Your task to perform on an android device: Open internet settings Image 0: 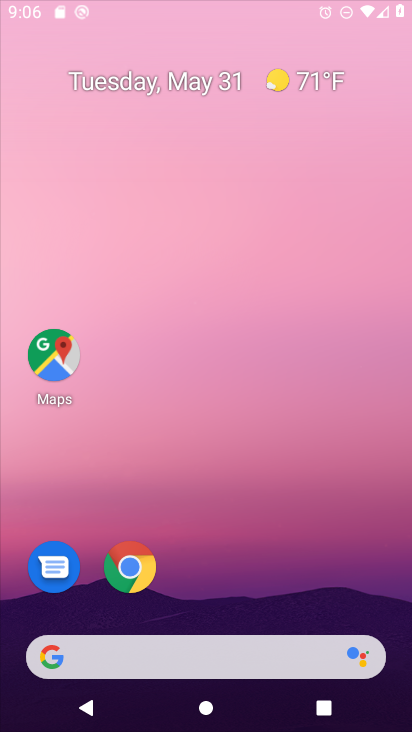
Step 0: click (187, 227)
Your task to perform on an android device: Open internet settings Image 1: 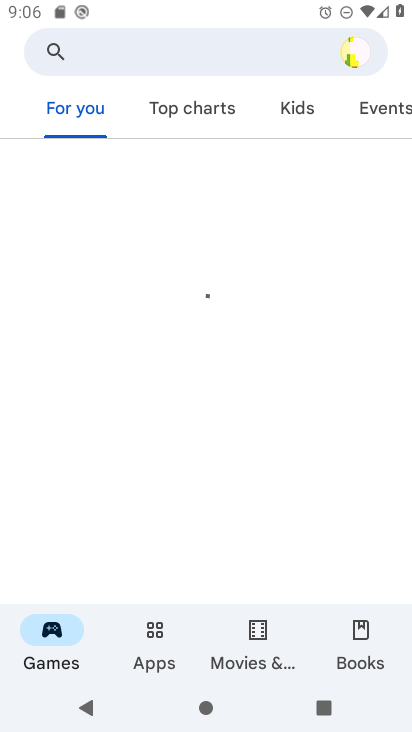
Step 1: press home button
Your task to perform on an android device: Open internet settings Image 2: 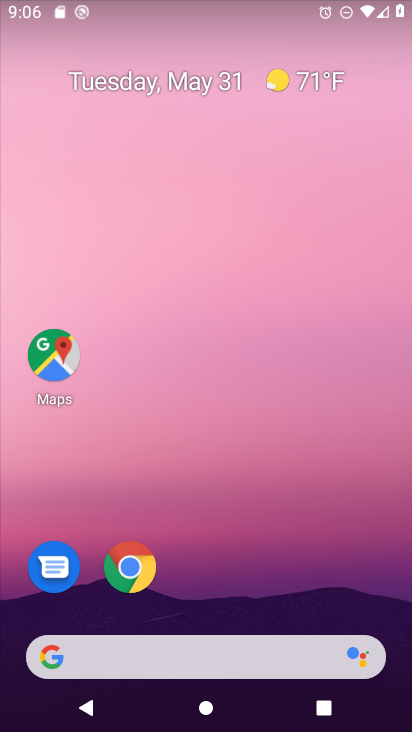
Step 2: drag from (188, 614) to (241, 140)
Your task to perform on an android device: Open internet settings Image 3: 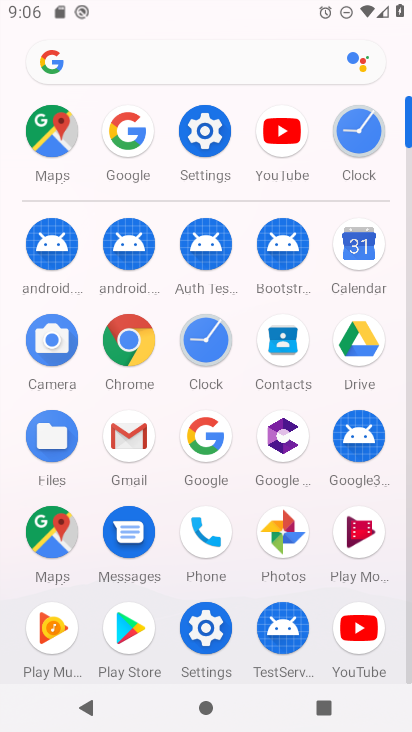
Step 3: click (202, 143)
Your task to perform on an android device: Open internet settings Image 4: 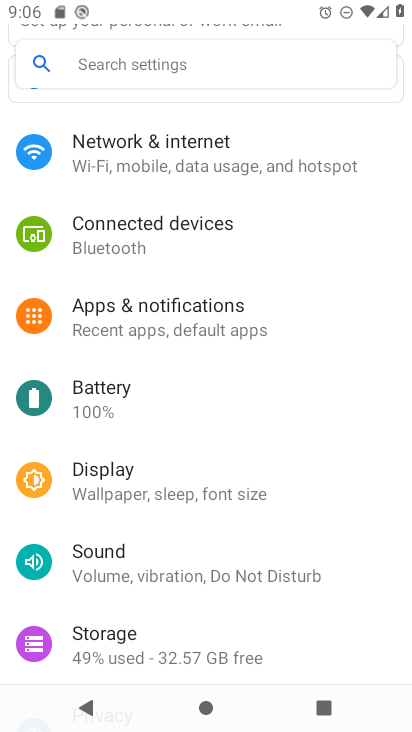
Step 4: click (208, 158)
Your task to perform on an android device: Open internet settings Image 5: 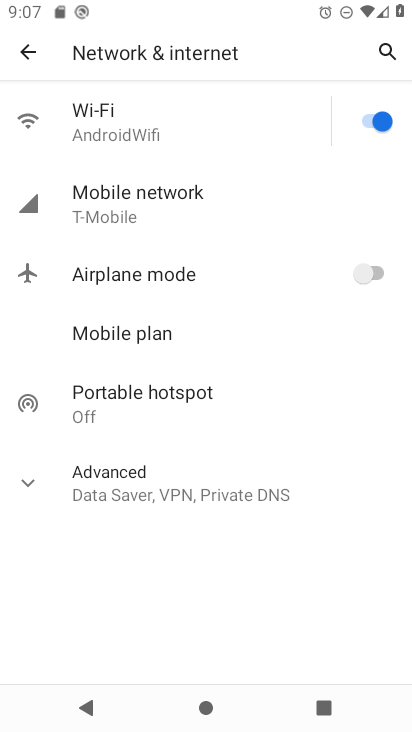
Step 5: click (159, 491)
Your task to perform on an android device: Open internet settings Image 6: 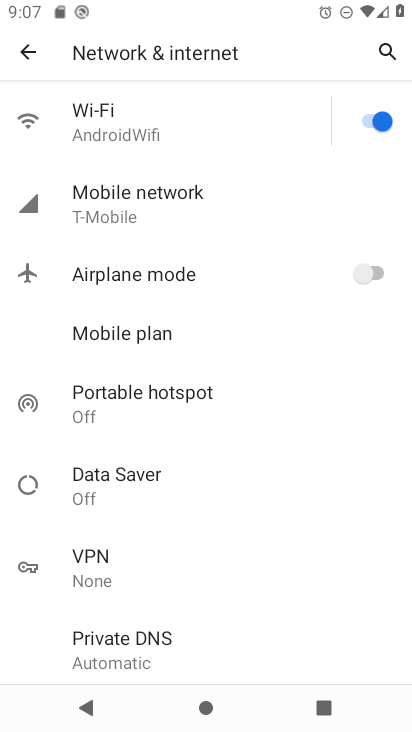
Step 6: task complete